Your task to perform on an android device: What is the news today? Image 0: 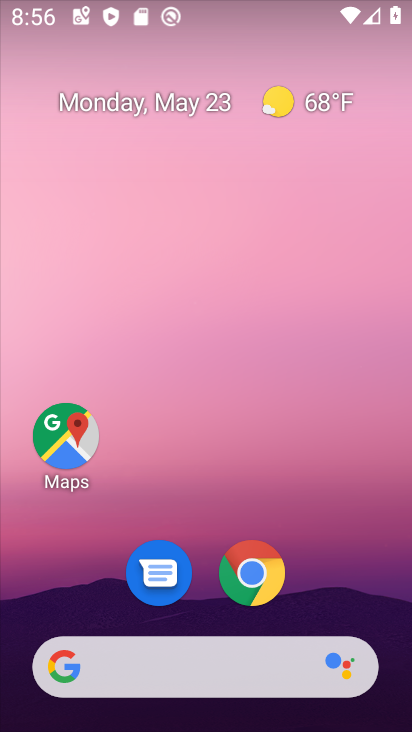
Step 0: drag from (292, 637) to (323, 32)
Your task to perform on an android device: What is the news today? Image 1: 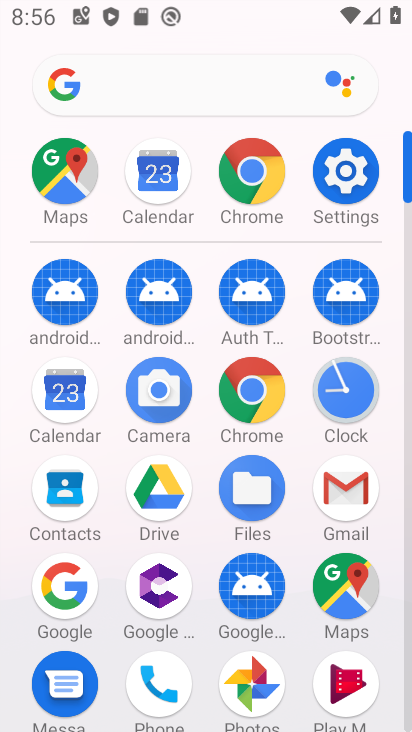
Step 1: click (85, 606)
Your task to perform on an android device: What is the news today? Image 2: 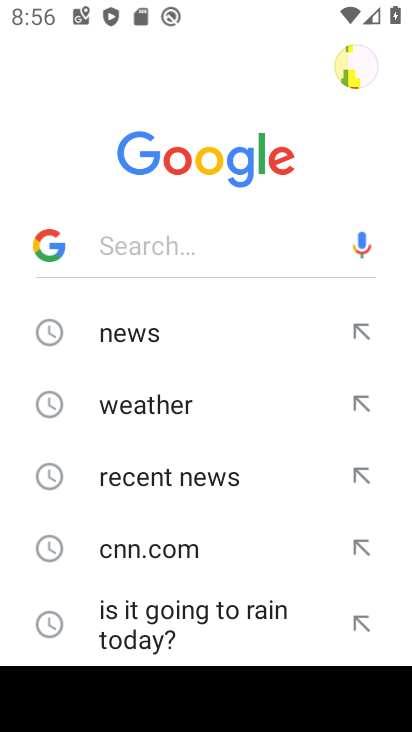
Step 2: click (206, 326)
Your task to perform on an android device: What is the news today? Image 3: 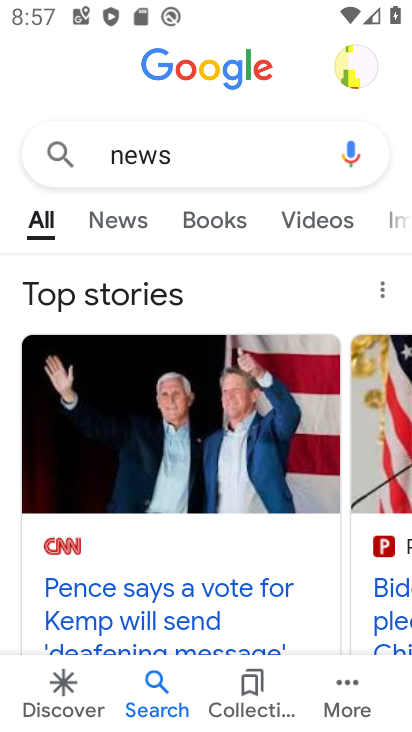
Step 3: task complete